Your task to perform on an android device: turn off picture-in-picture Image 0: 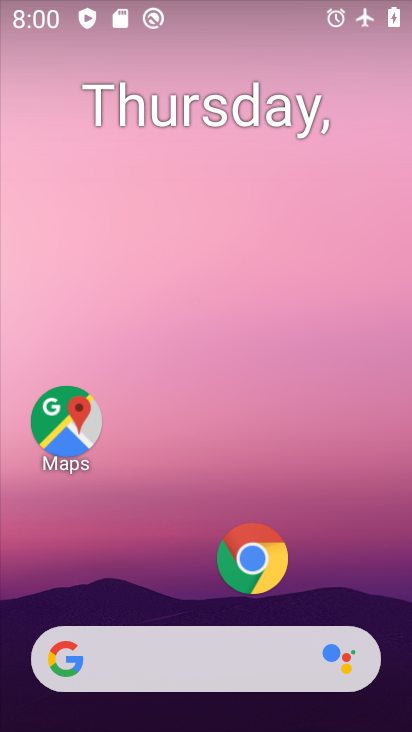
Step 0: drag from (170, 430) to (194, 131)
Your task to perform on an android device: turn off picture-in-picture Image 1: 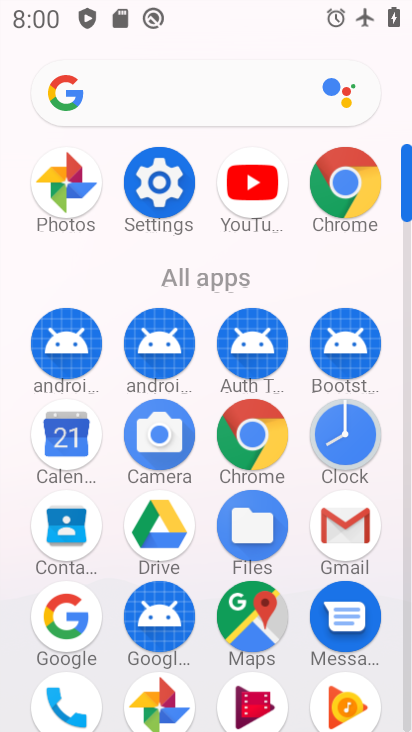
Step 1: click (163, 177)
Your task to perform on an android device: turn off picture-in-picture Image 2: 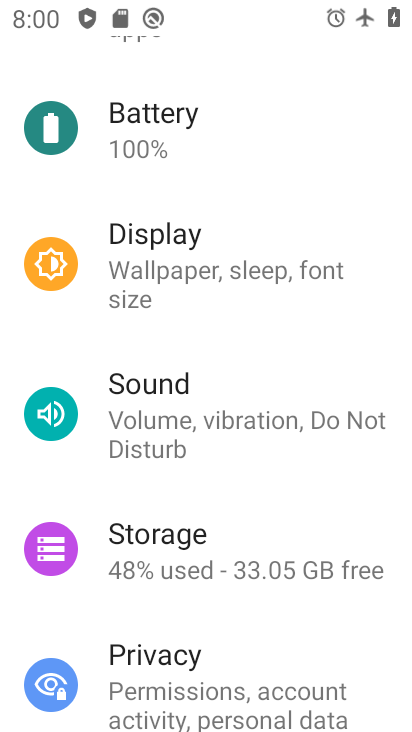
Step 2: drag from (207, 554) to (280, 176)
Your task to perform on an android device: turn off picture-in-picture Image 3: 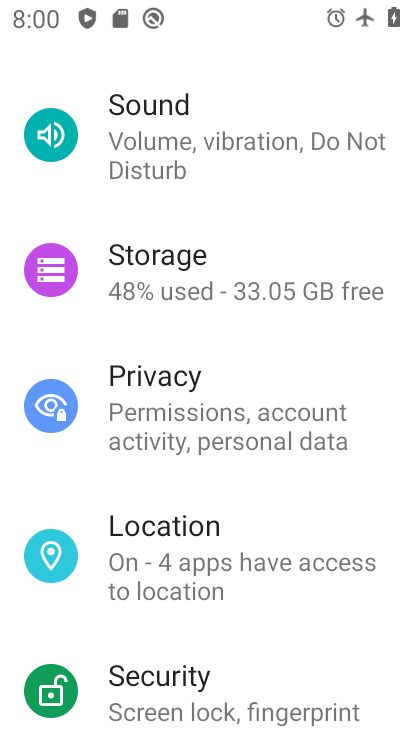
Step 3: drag from (234, 643) to (268, 313)
Your task to perform on an android device: turn off picture-in-picture Image 4: 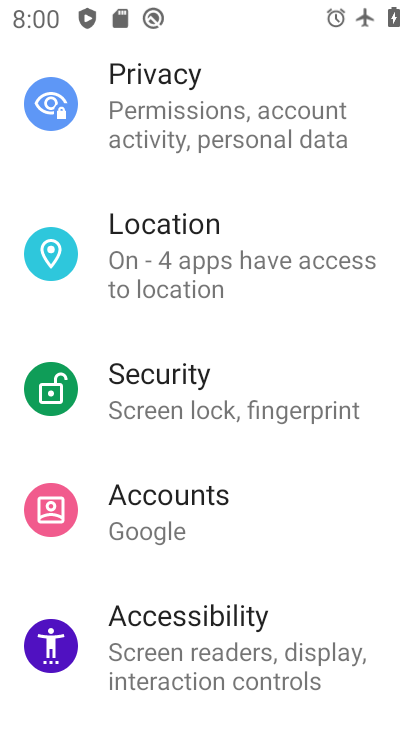
Step 4: drag from (263, 269) to (243, 637)
Your task to perform on an android device: turn off picture-in-picture Image 5: 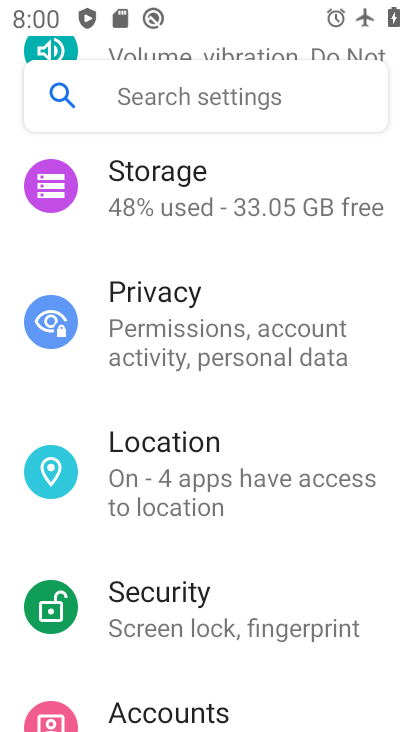
Step 5: drag from (290, 344) to (292, 631)
Your task to perform on an android device: turn off picture-in-picture Image 6: 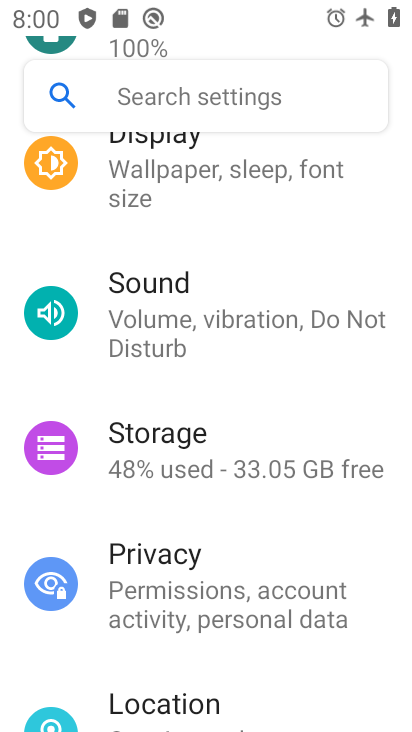
Step 6: drag from (280, 197) to (247, 637)
Your task to perform on an android device: turn off picture-in-picture Image 7: 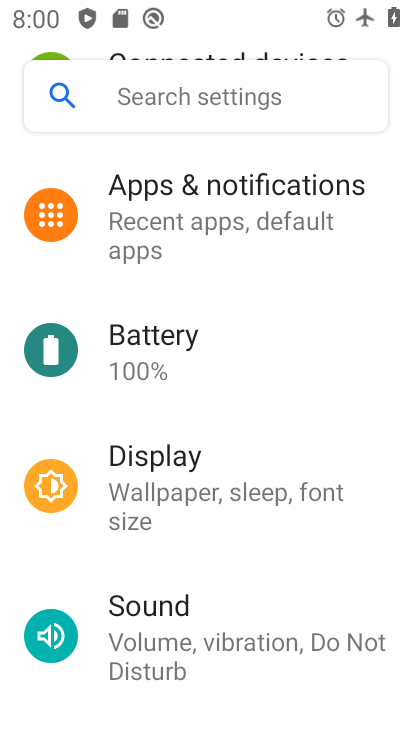
Step 7: drag from (218, 325) to (204, 573)
Your task to perform on an android device: turn off picture-in-picture Image 8: 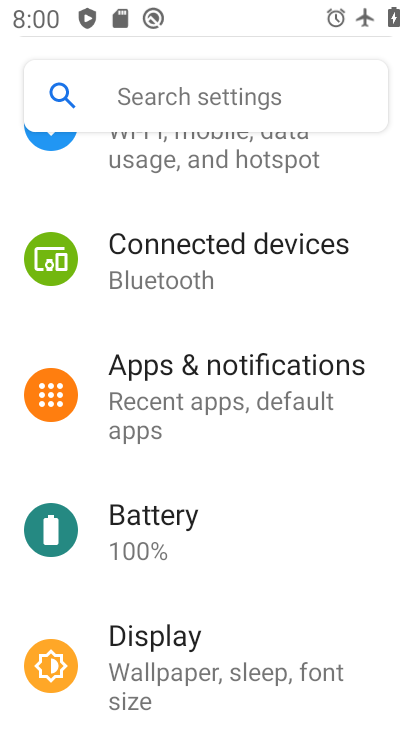
Step 8: click (218, 378)
Your task to perform on an android device: turn off picture-in-picture Image 9: 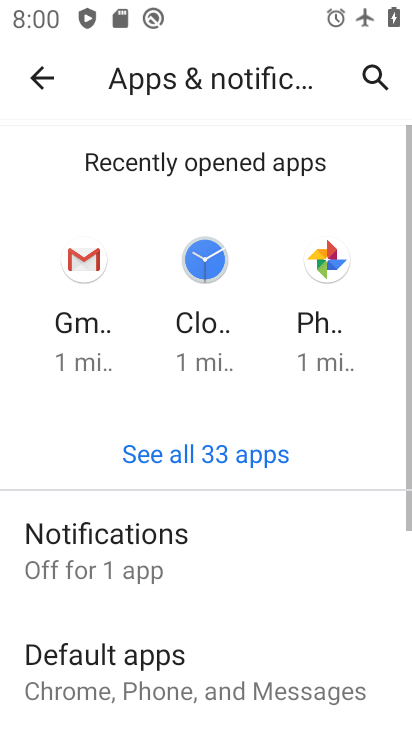
Step 9: drag from (170, 649) to (187, 224)
Your task to perform on an android device: turn off picture-in-picture Image 10: 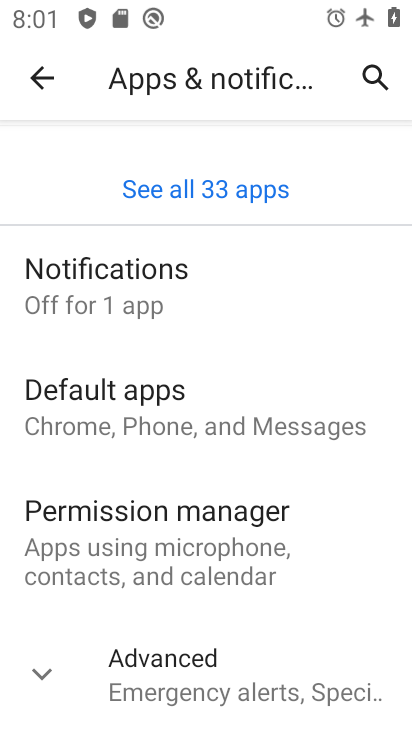
Step 10: drag from (152, 380) to (172, 211)
Your task to perform on an android device: turn off picture-in-picture Image 11: 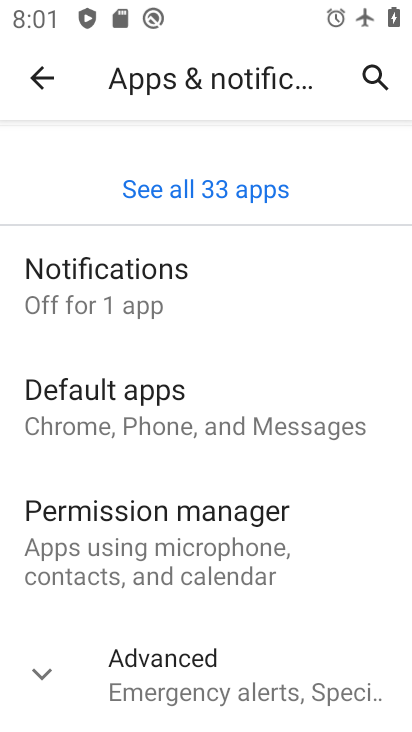
Step 11: click (49, 663)
Your task to perform on an android device: turn off picture-in-picture Image 12: 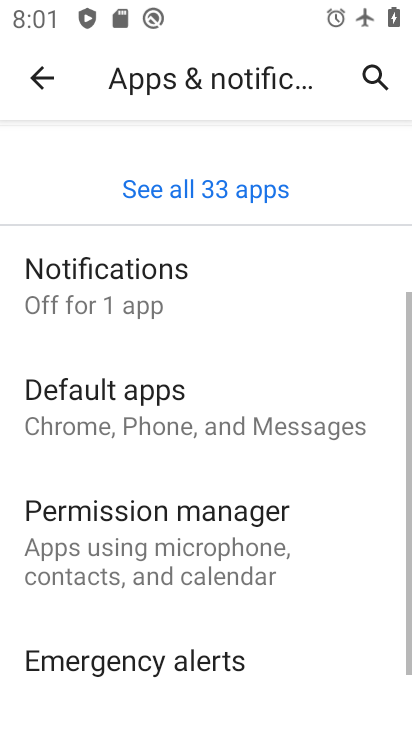
Step 12: drag from (111, 491) to (160, 188)
Your task to perform on an android device: turn off picture-in-picture Image 13: 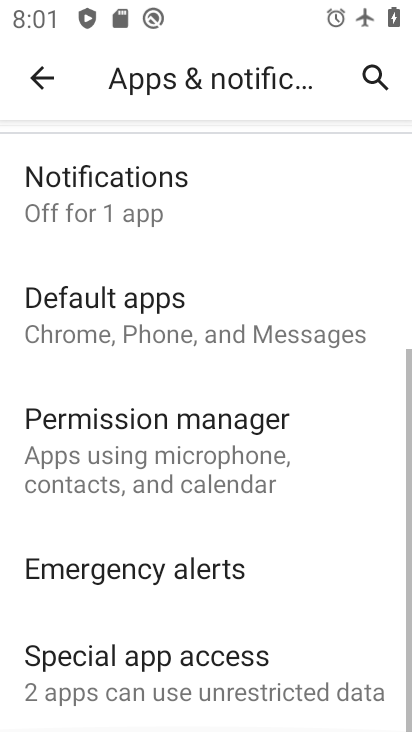
Step 13: drag from (168, 530) to (177, 394)
Your task to perform on an android device: turn off picture-in-picture Image 14: 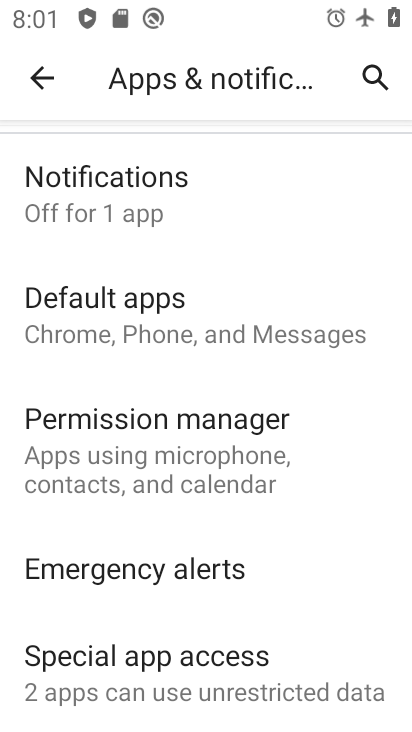
Step 14: click (112, 663)
Your task to perform on an android device: turn off picture-in-picture Image 15: 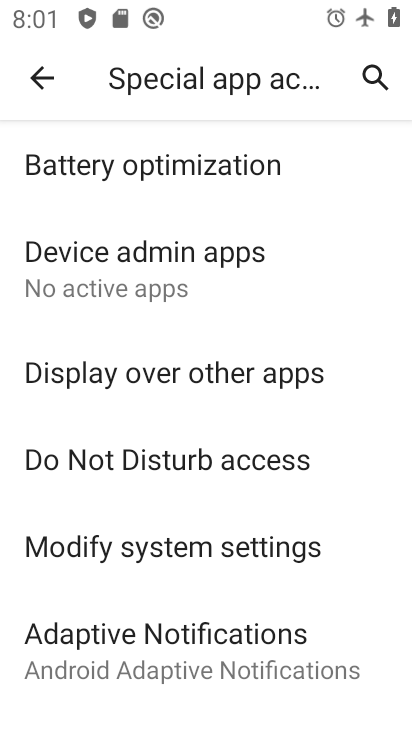
Step 15: drag from (156, 612) to (221, 181)
Your task to perform on an android device: turn off picture-in-picture Image 16: 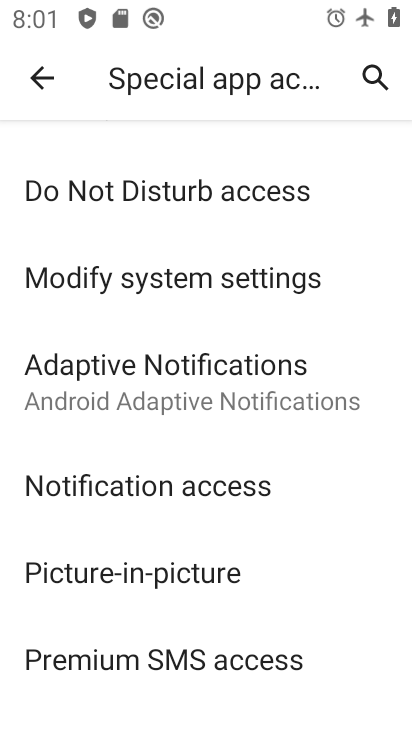
Step 16: click (109, 562)
Your task to perform on an android device: turn off picture-in-picture Image 17: 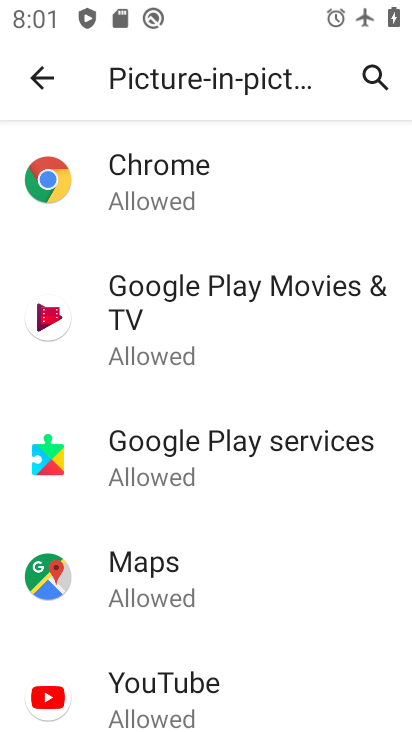
Step 17: click (148, 470)
Your task to perform on an android device: turn off picture-in-picture Image 18: 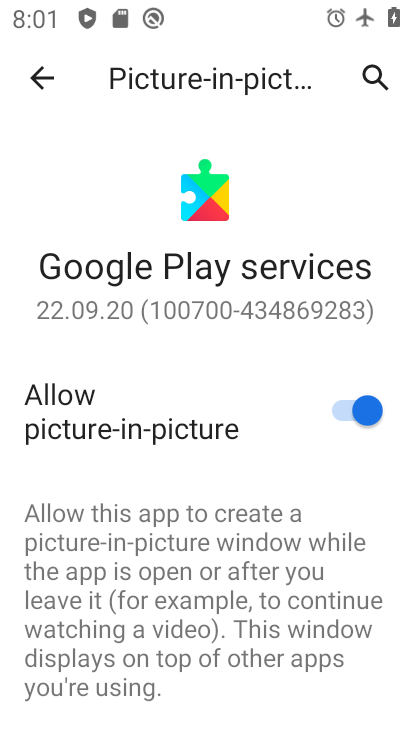
Step 18: click (350, 410)
Your task to perform on an android device: turn off picture-in-picture Image 19: 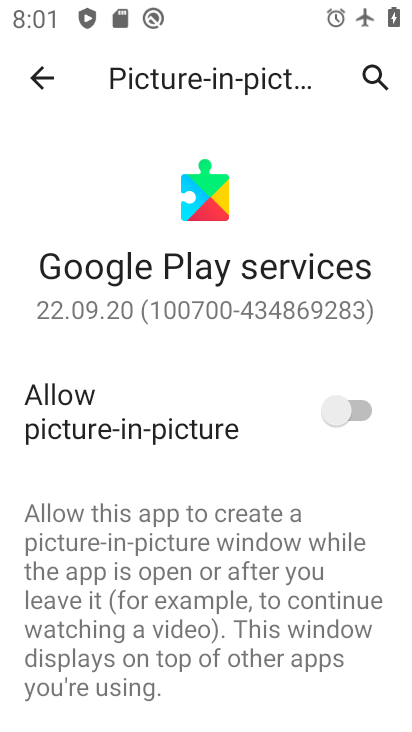
Step 19: task complete